Your task to perform on an android device: stop showing notifications on the lock screen Image 0: 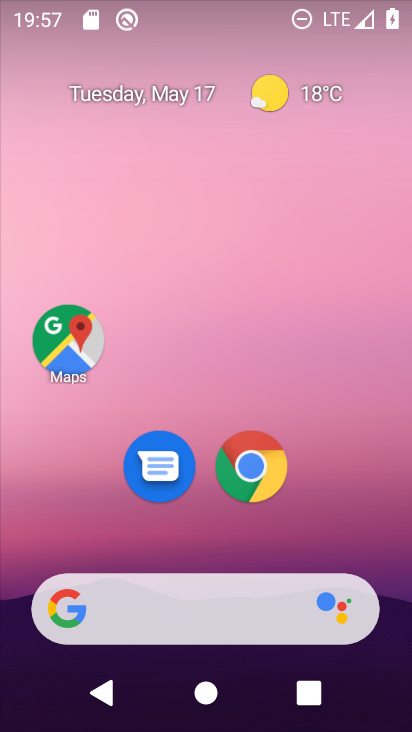
Step 0: drag from (171, 607) to (230, 265)
Your task to perform on an android device: stop showing notifications on the lock screen Image 1: 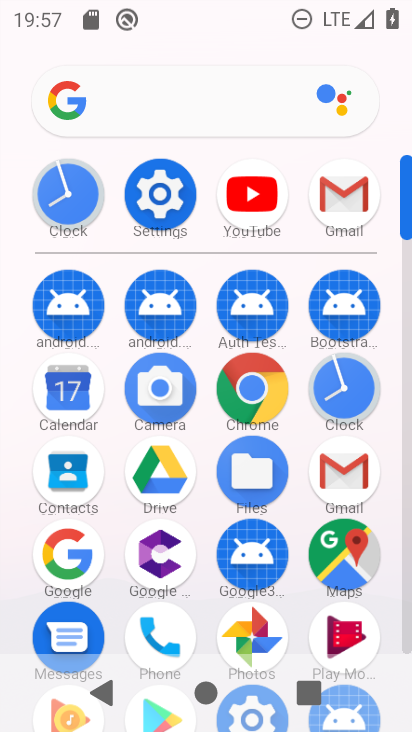
Step 1: click (163, 216)
Your task to perform on an android device: stop showing notifications on the lock screen Image 2: 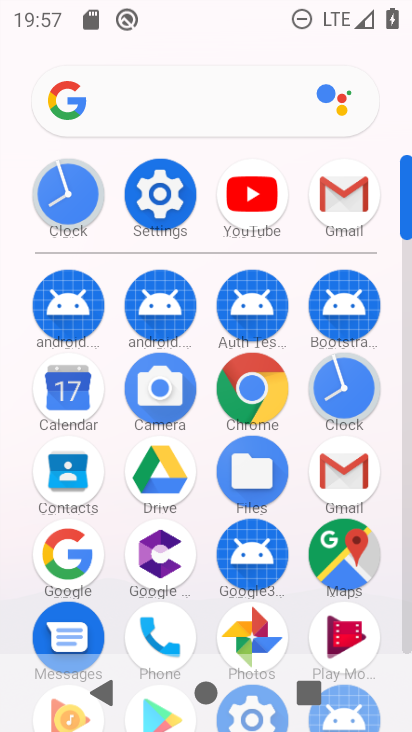
Step 2: click (160, 203)
Your task to perform on an android device: stop showing notifications on the lock screen Image 3: 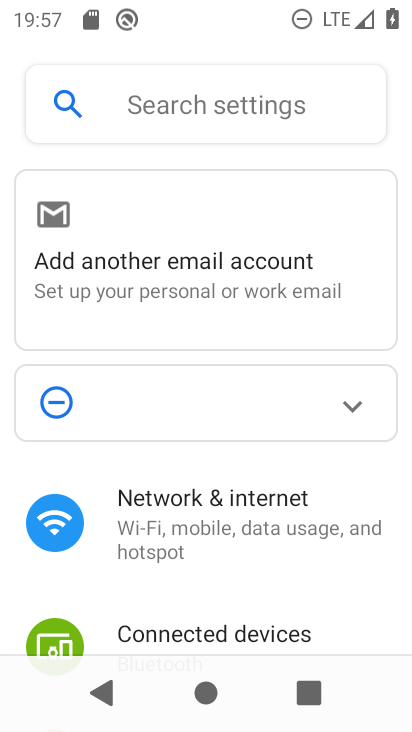
Step 3: drag from (221, 616) to (292, 306)
Your task to perform on an android device: stop showing notifications on the lock screen Image 4: 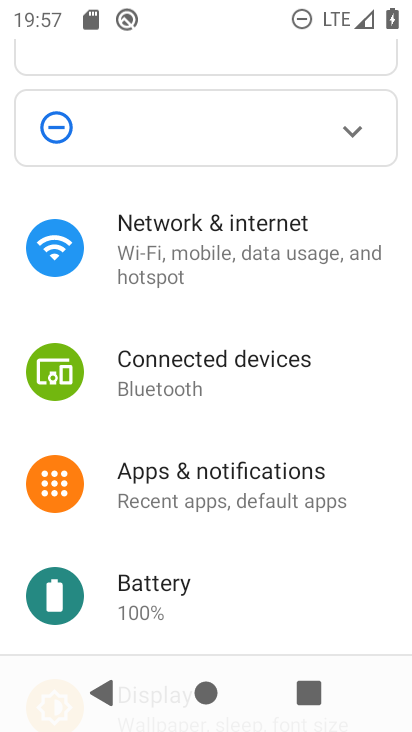
Step 4: click (237, 484)
Your task to perform on an android device: stop showing notifications on the lock screen Image 5: 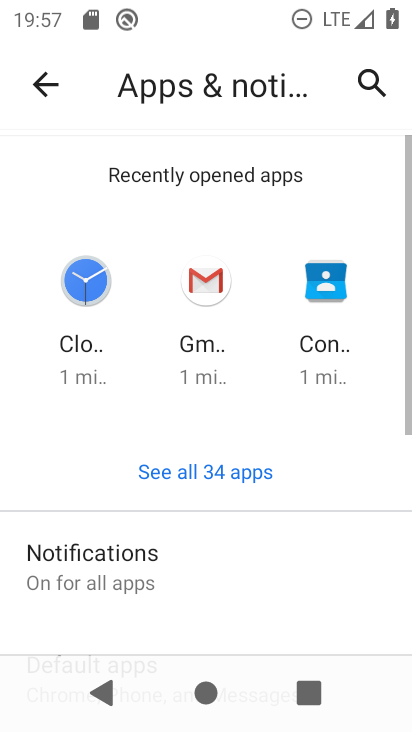
Step 5: click (123, 561)
Your task to perform on an android device: stop showing notifications on the lock screen Image 6: 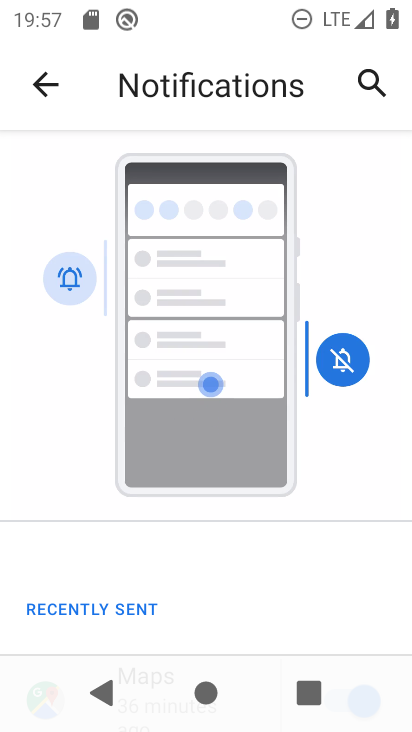
Step 6: drag from (215, 605) to (321, 150)
Your task to perform on an android device: stop showing notifications on the lock screen Image 7: 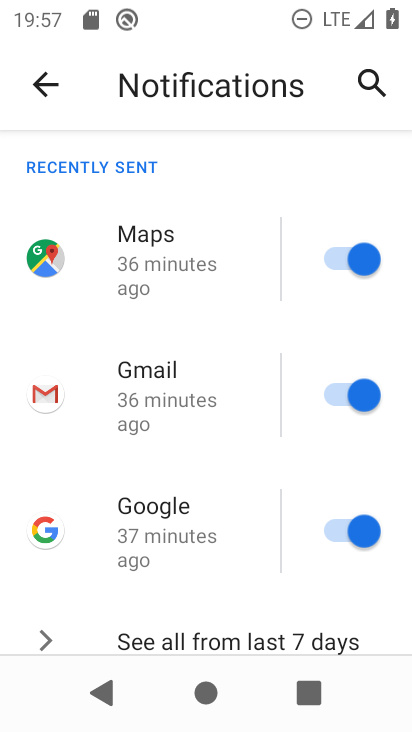
Step 7: drag from (237, 551) to (296, 170)
Your task to perform on an android device: stop showing notifications on the lock screen Image 8: 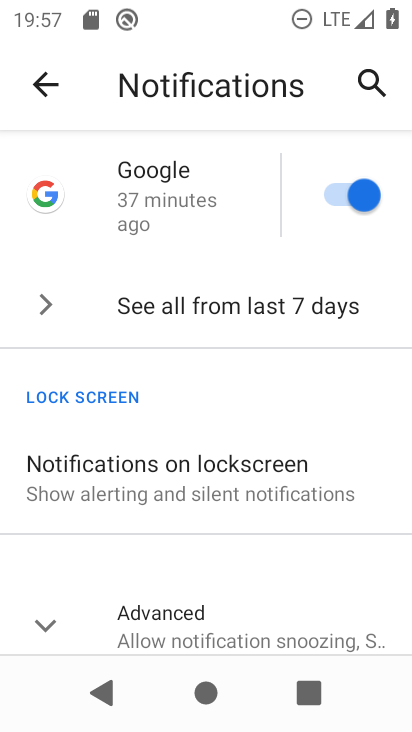
Step 8: click (171, 467)
Your task to perform on an android device: stop showing notifications on the lock screen Image 9: 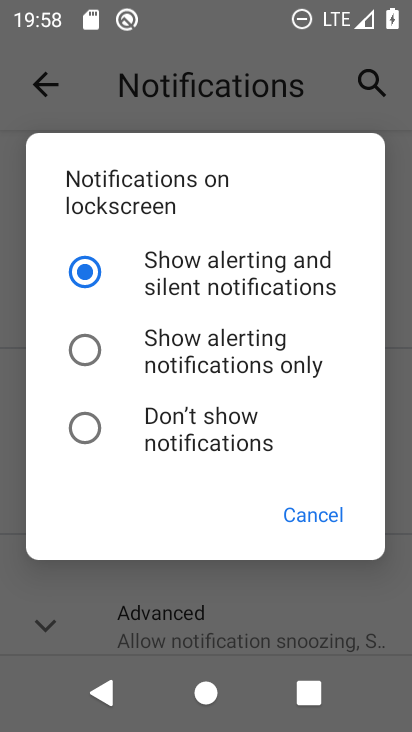
Step 9: click (90, 420)
Your task to perform on an android device: stop showing notifications on the lock screen Image 10: 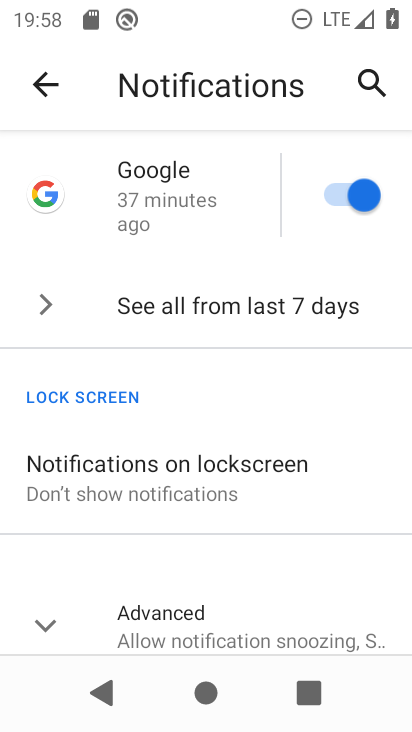
Step 10: task complete